Your task to perform on an android device: Open settings Image 0: 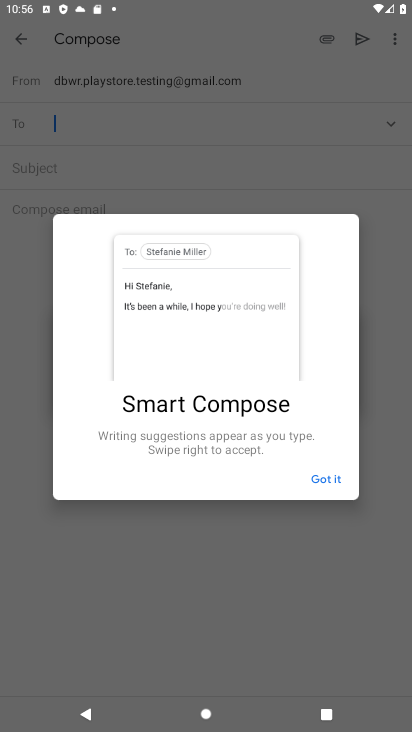
Step 0: task complete